Your task to perform on an android device: turn on javascript in the chrome app Image 0: 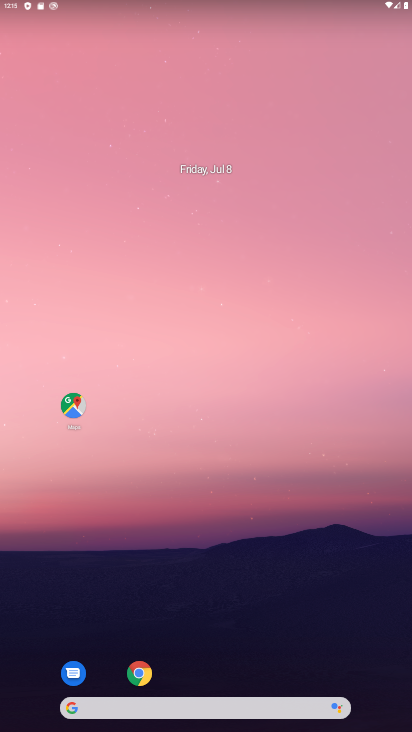
Step 0: click (141, 674)
Your task to perform on an android device: turn on javascript in the chrome app Image 1: 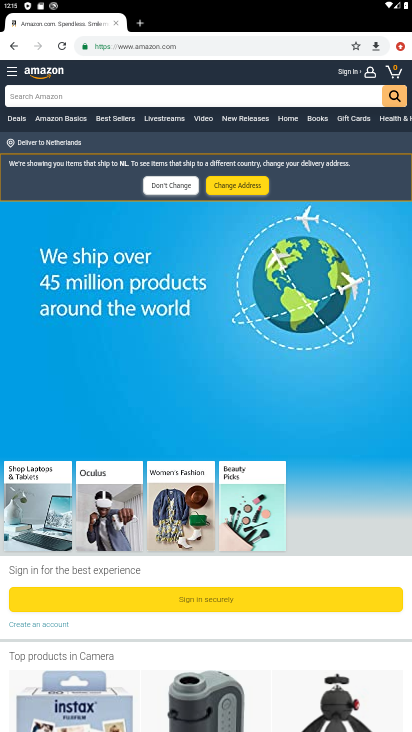
Step 1: click (397, 48)
Your task to perform on an android device: turn on javascript in the chrome app Image 2: 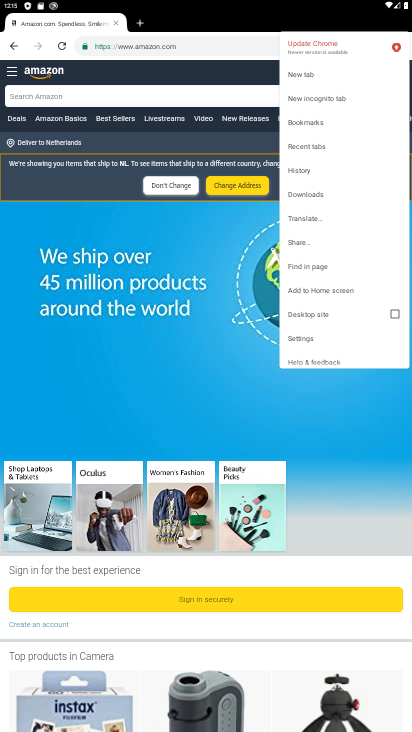
Step 2: click (315, 334)
Your task to perform on an android device: turn on javascript in the chrome app Image 3: 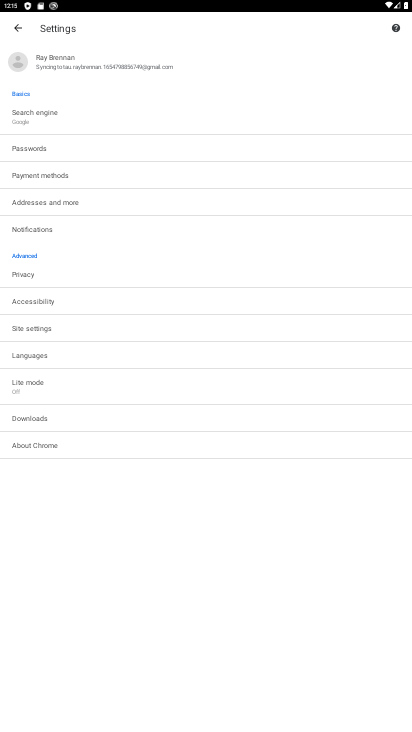
Step 3: click (48, 326)
Your task to perform on an android device: turn on javascript in the chrome app Image 4: 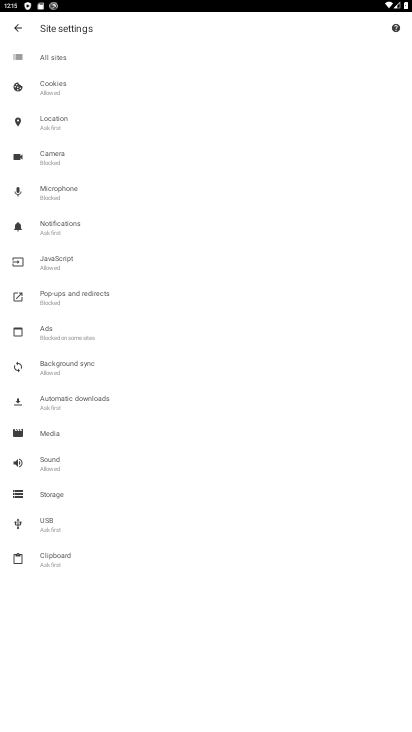
Step 4: click (67, 265)
Your task to perform on an android device: turn on javascript in the chrome app Image 5: 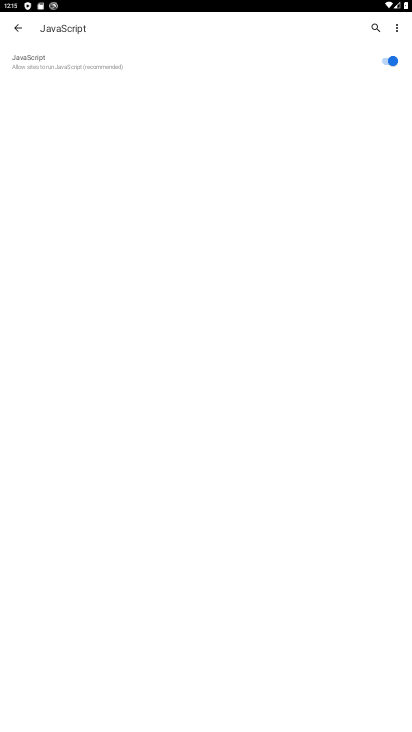
Step 5: task complete